Your task to perform on an android device: turn off improve location accuracy Image 0: 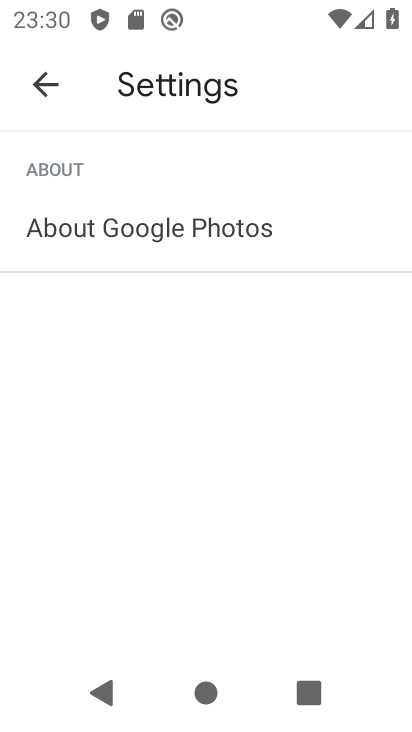
Step 0: press home button
Your task to perform on an android device: turn off improve location accuracy Image 1: 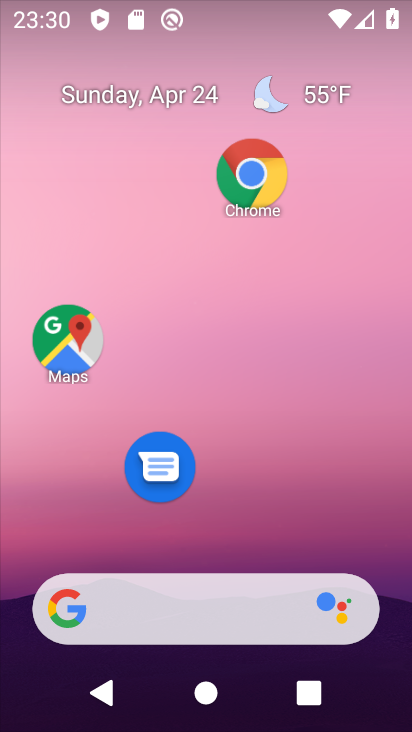
Step 1: drag from (251, 521) to (265, 59)
Your task to perform on an android device: turn off improve location accuracy Image 2: 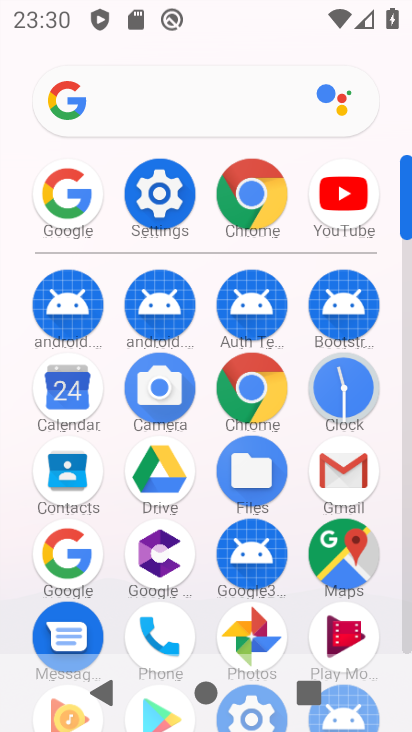
Step 2: click (152, 191)
Your task to perform on an android device: turn off improve location accuracy Image 3: 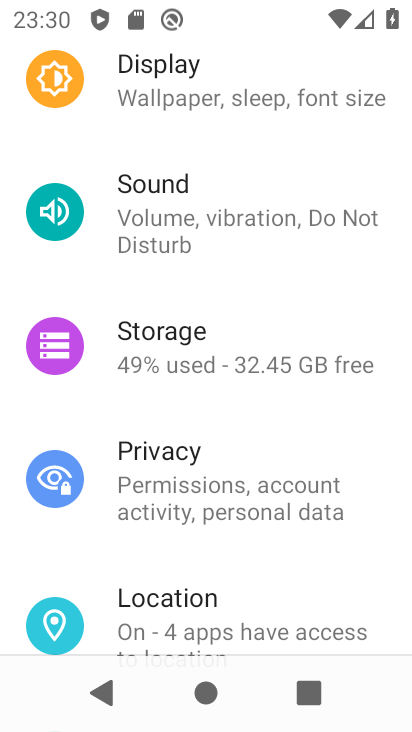
Step 3: click (176, 616)
Your task to perform on an android device: turn off improve location accuracy Image 4: 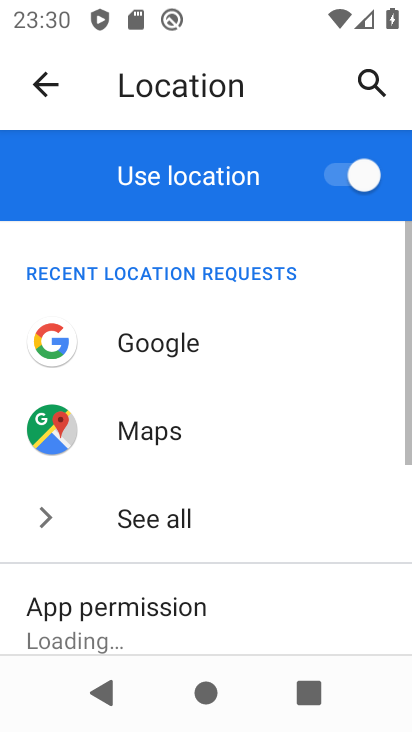
Step 4: drag from (312, 533) to (319, 0)
Your task to perform on an android device: turn off improve location accuracy Image 5: 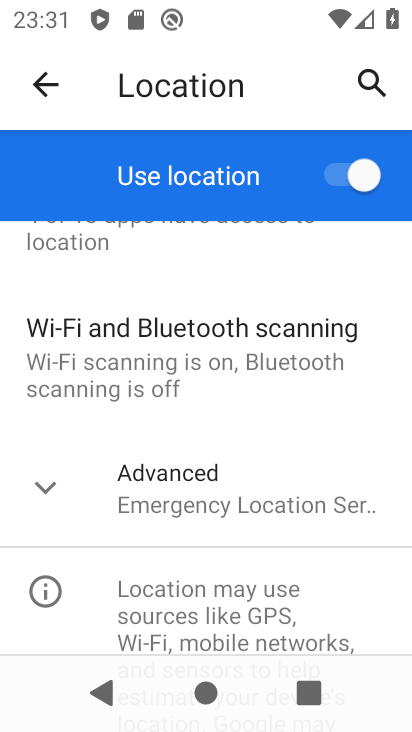
Step 5: click (113, 494)
Your task to perform on an android device: turn off improve location accuracy Image 6: 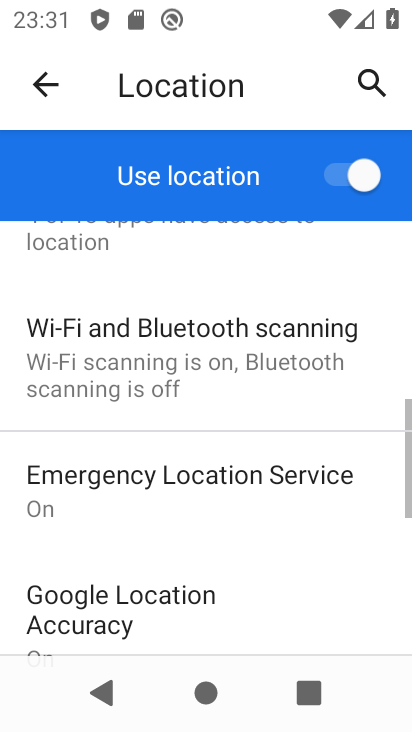
Step 6: drag from (240, 582) to (231, 318)
Your task to perform on an android device: turn off improve location accuracy Image 7: 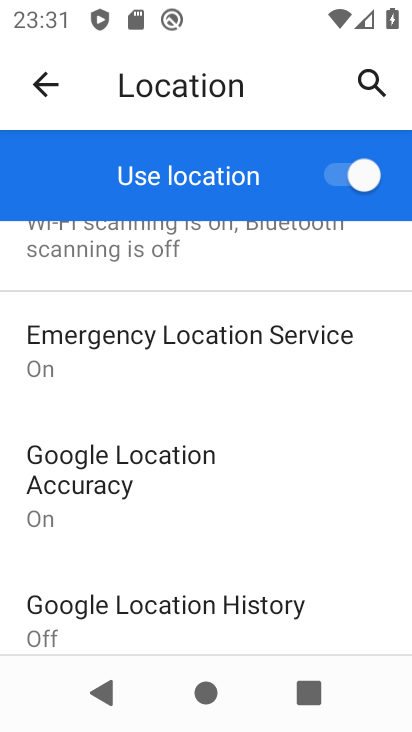
Step 7: click (143, 485)
Your task to perform on an android device: turn off improve location accuracy Image 8: 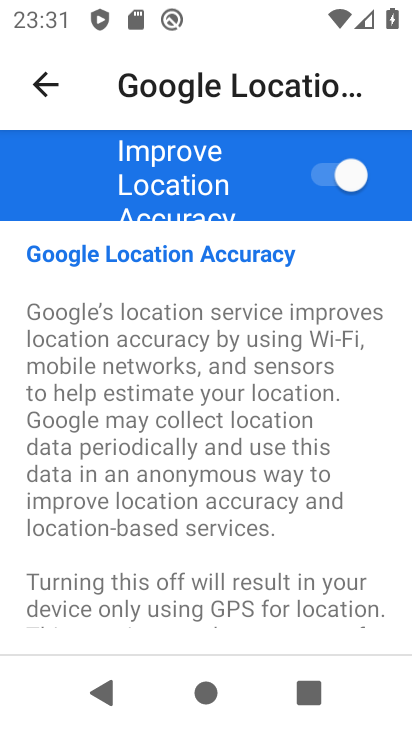
Step 8: click (353, 166)
Your task to perform on an android device: turn off improve location accuracy Image 9: 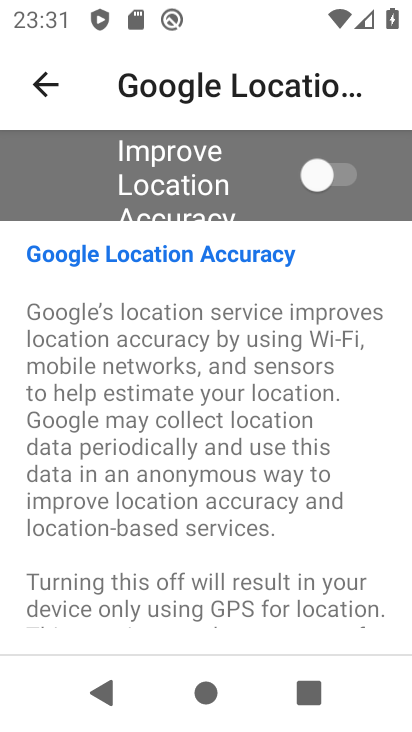
Step 9: task complete